Your task to perform on an android device: install app "Messages" Image 0: 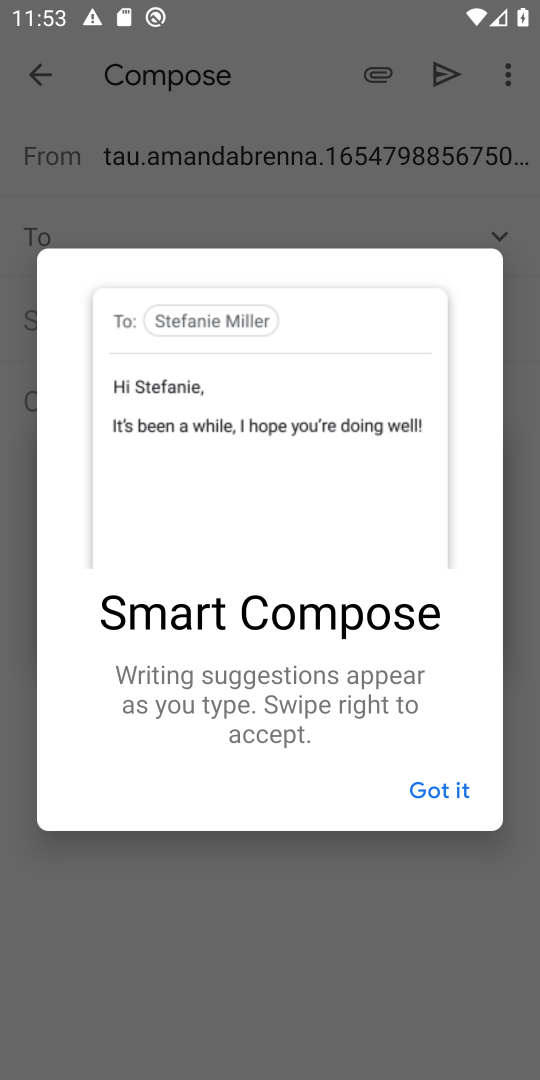
Step 0: press home button
Your task to perform on an android device: install app "Messages" Image 1: 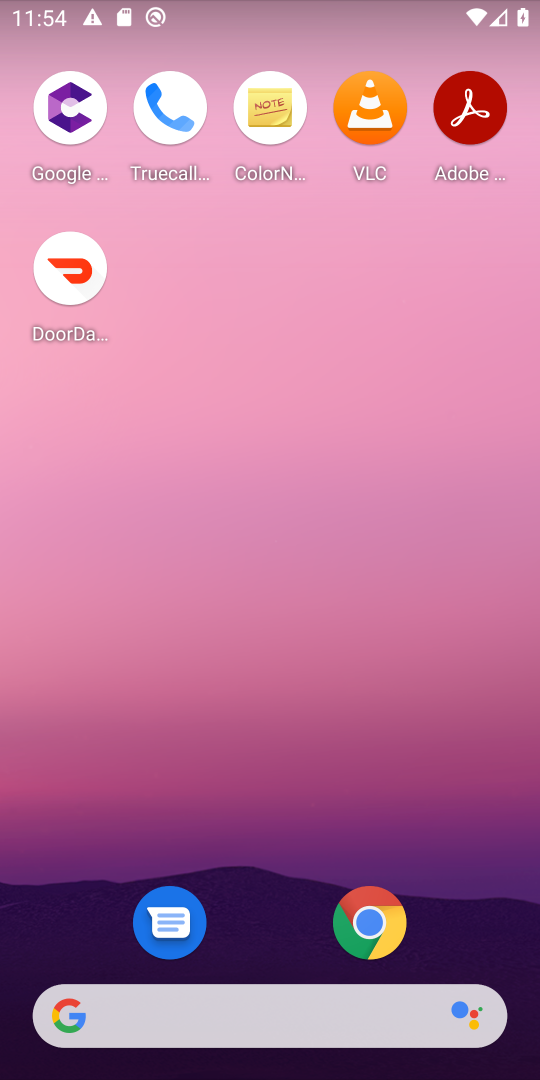
Step 1: drag from (242, 978) to (316, 23)
Your task to perform on an android device: install app "Messages" Image 2: 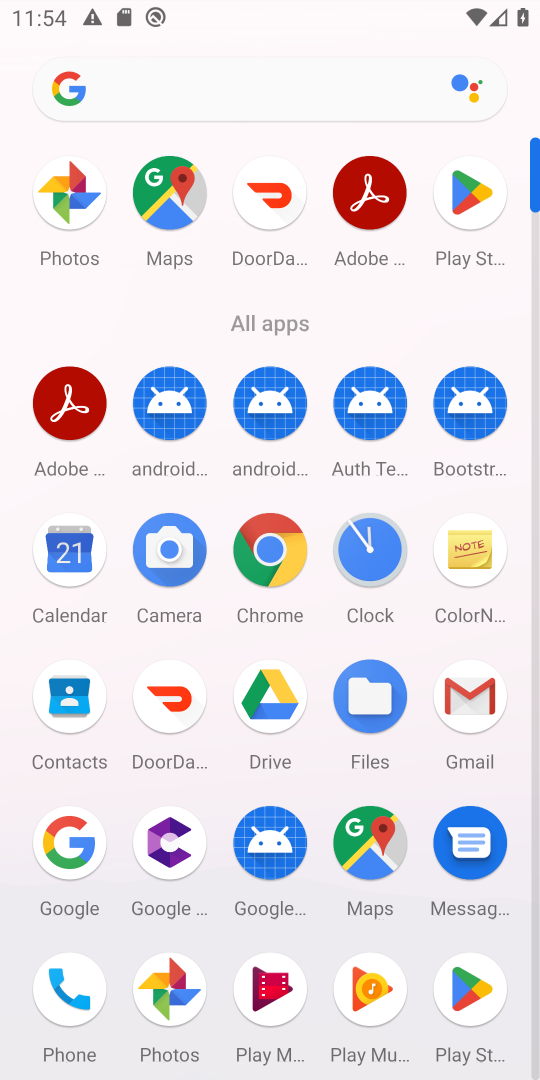
Step 2: click (466, 869)
Your task to perform on an android device: install app "Messages" Image 3: 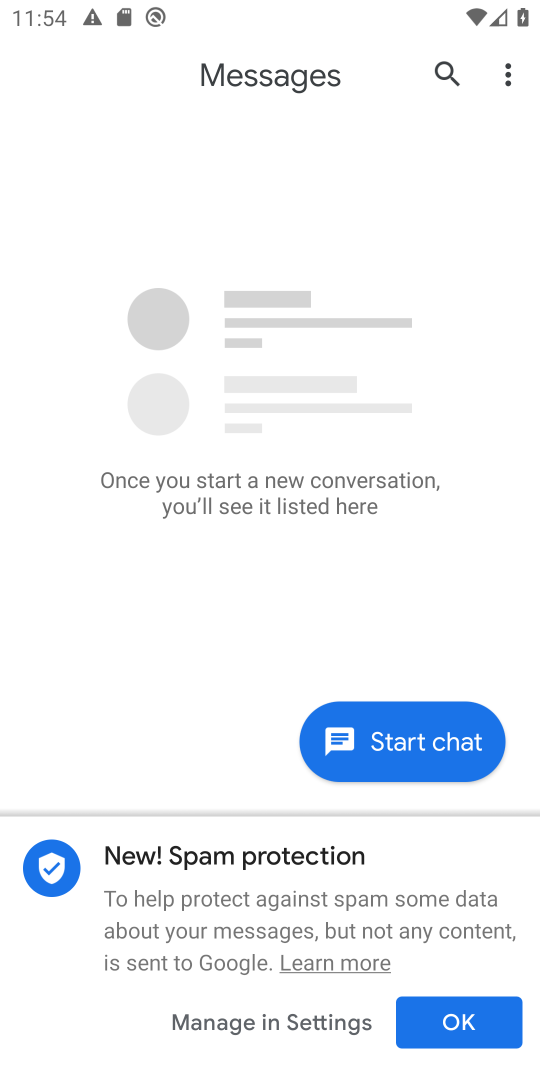
Step 3: click (480, 1021)
Your task to perform on an android device: install app "Messages" Image 4: 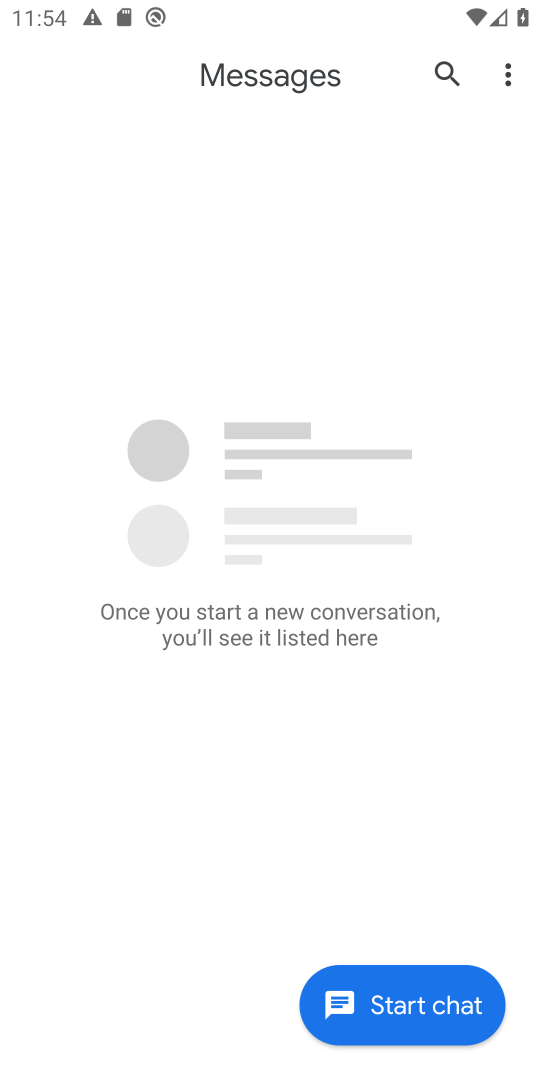
Step 4: task complete